Your task to perform on an android device: remove spam from my inbox in the gmail app Image 0: 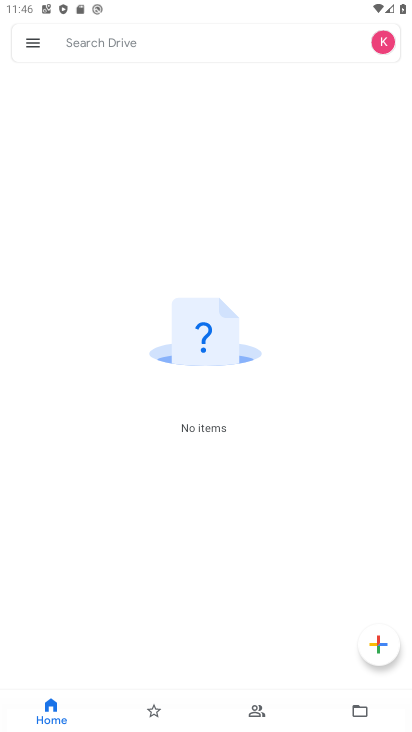
Step 0: press home button
Your task to perform on an android device: remove spam from my inbox in the gmail app Image 1: 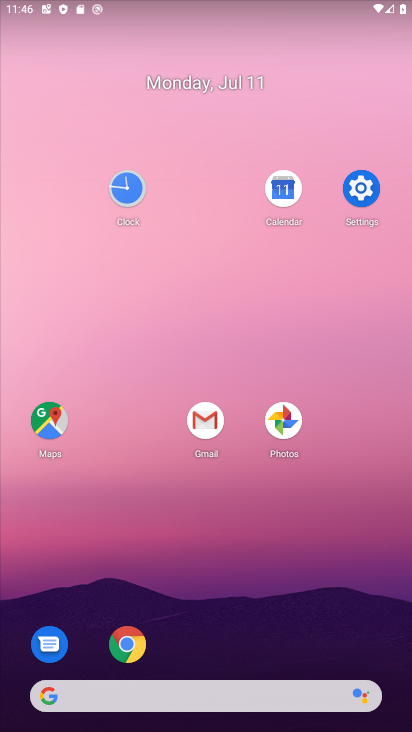
Step 1: click (200, 420)
Your task to perform on an android device: remove spam from my inbox in the gmail app Image 2: 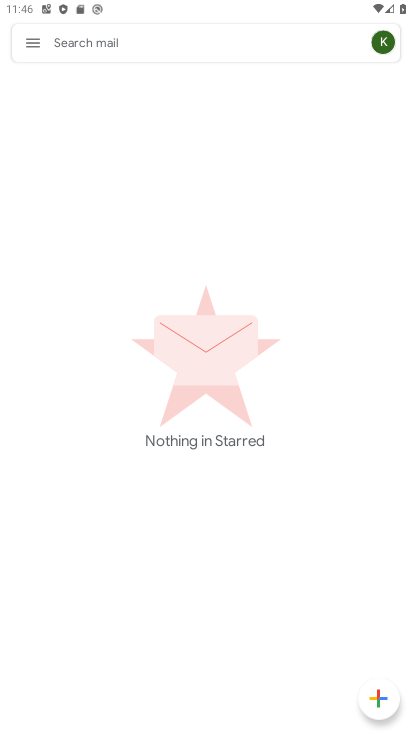
Step 2: click (22, 41)
Your task to perform on an android device: remove spam from my inbox in the gmail app Image 3: 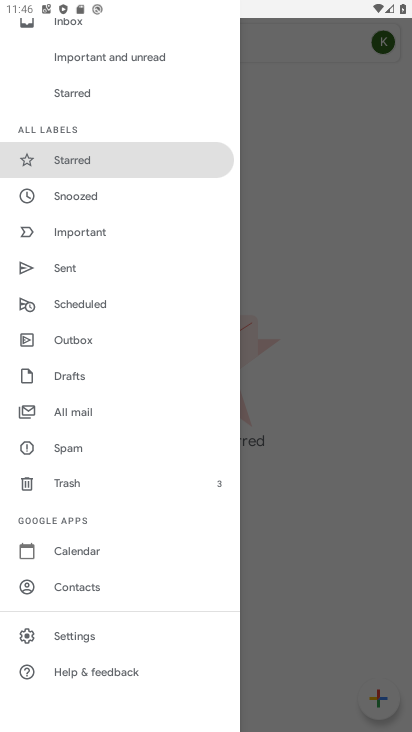
Step 3: click (87, 445)
Your task to perform on an android device: remove spam from my inbox in the gmail app Image 4: 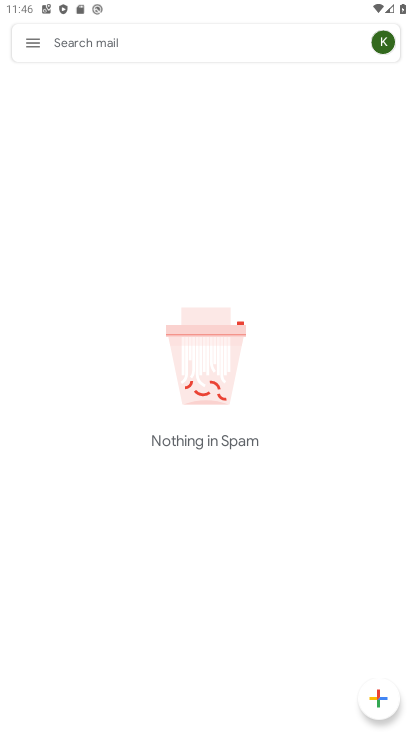
Step 4: task complete